Your task to perform on an android device: Search for sushi restaurants on Maps Image 0: 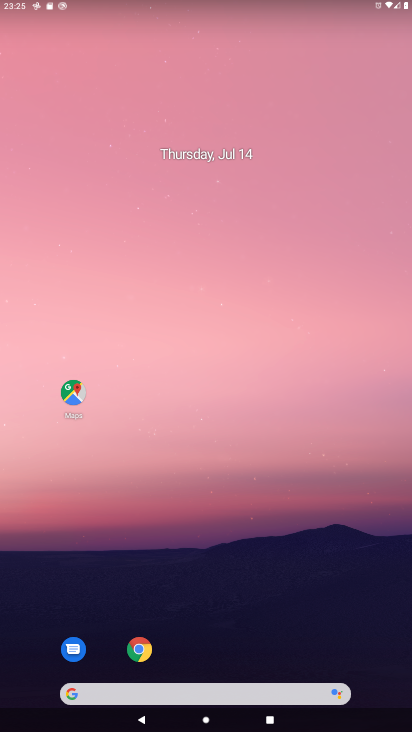
Step 0: click (70, 388)
Your task to perform on an android device: Search for sushi restaurants on Maps Image 1: 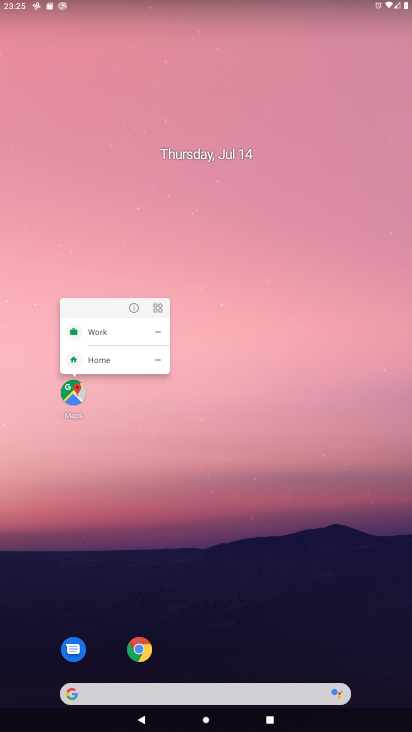
Step 1: click (67, 393)
Your task to perform on an android device: Search for sushi restaurants on Maps Image 2: 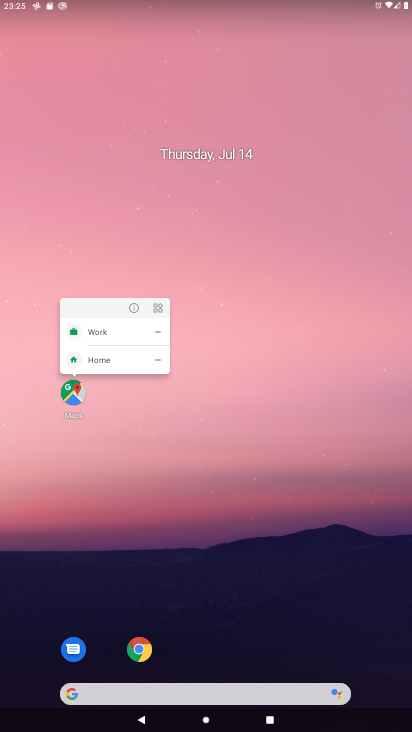
Step 2: click (67, 393)
Your task to perform on an android device: Search for sushi restaurants on Maps Image 3: 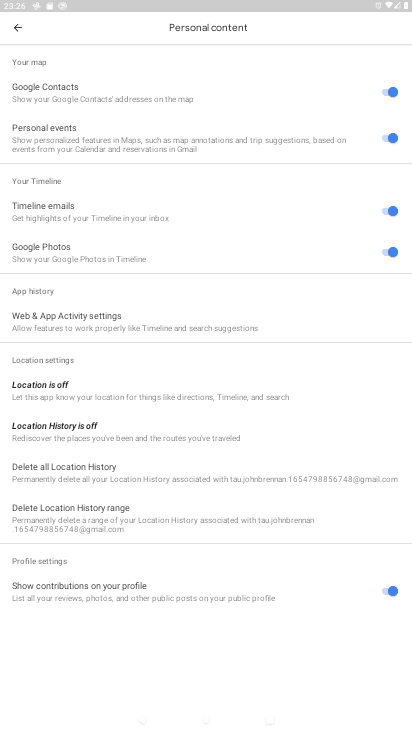
Step 3: click (19, 17)
Your task to perform on an android device: Search for sushi restaurants on Maps Image 4: 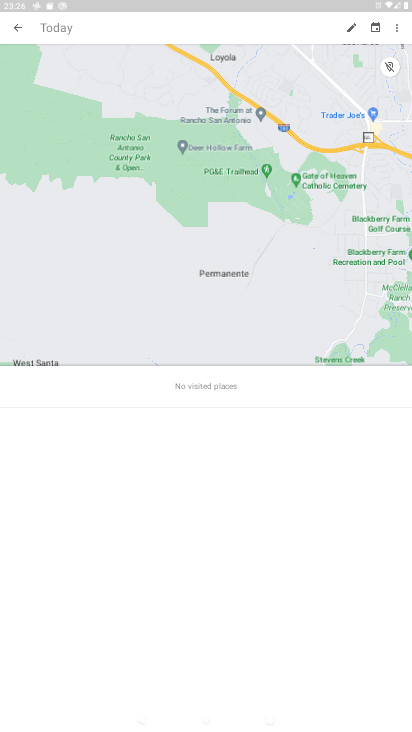
Step 4: click (17, 31)
Your task to perform on an android device: Search for sushi restaurants on Maps Image 5: 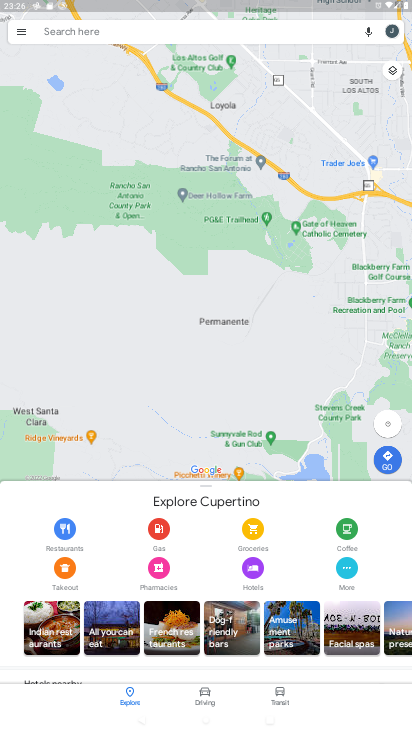
Step 5: click (236, 29)
Your task to perform on an android device: Search for sushi restaurants on Maps Image 6: 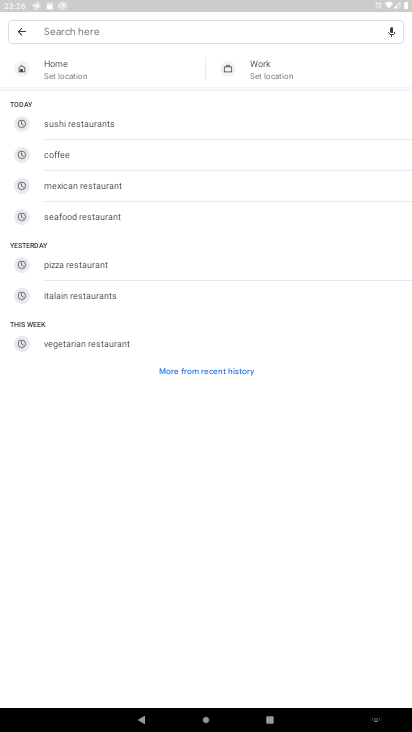
Step 6: click (107, 125)
Your task to perform on an android device: Search for sushi restaurants on Maps Image 7: 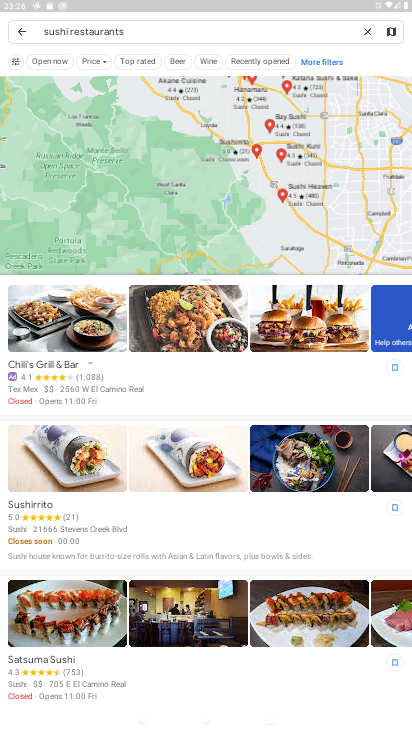
Step 7: task complete